Your task to perform on an android device: toggle airplane mode Image 0: 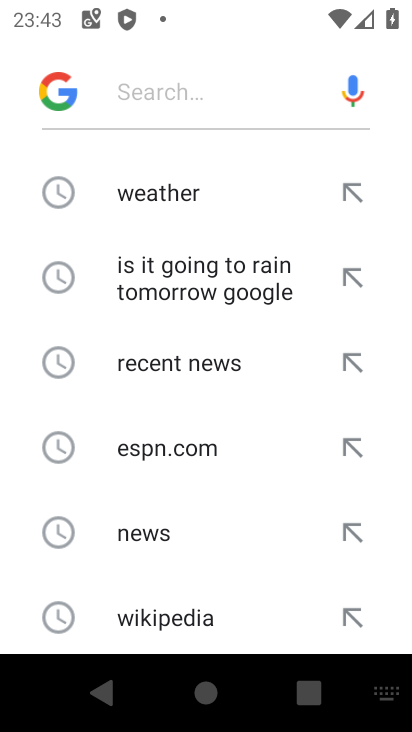
Step 0: press home button
Your task to perform on an android device: toggle airplane mode Image 1: 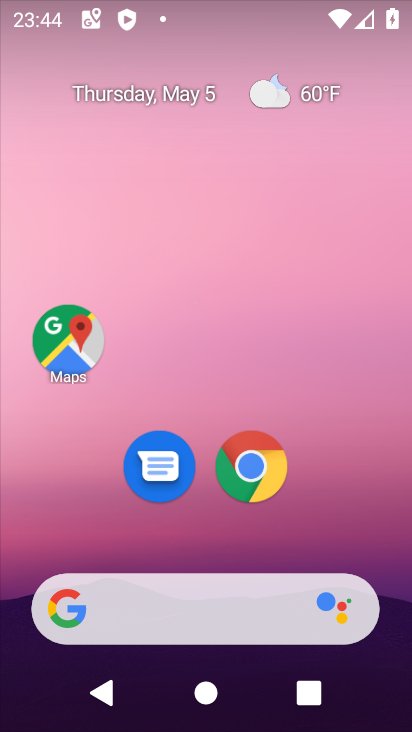
Step 1: drag from (136, 575) to (211, 163)
Your task to perform on an android device: toggle airplane mode Image 2: 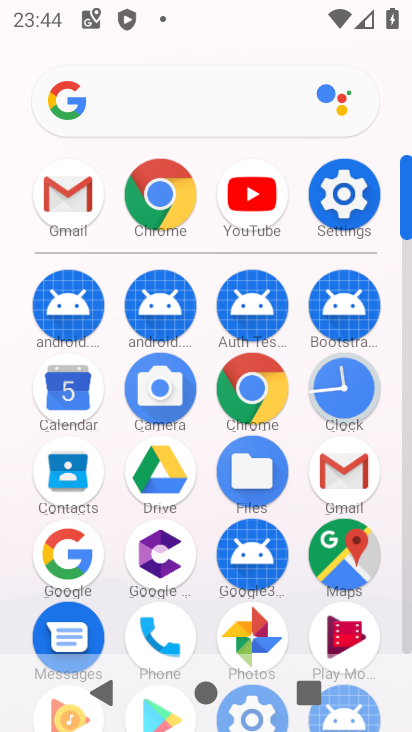
Step 2: click (339, 198)
Your task to perform on an android device: toggle airplane mode Image 3: 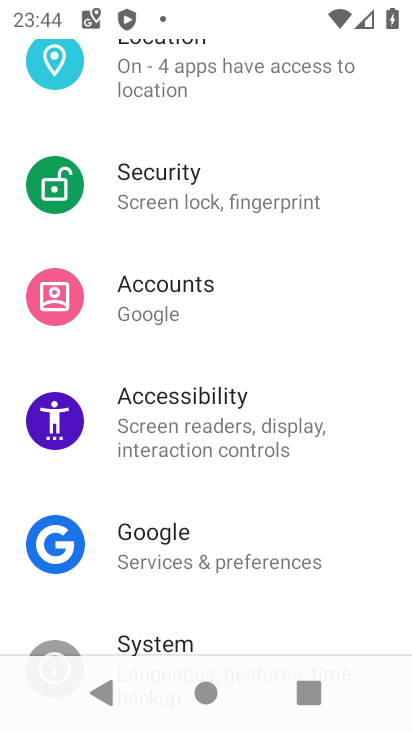
Step 3: drag from (182, 505) to (238, 273)
Your task to perform on an android device: toggle airplane mode Image 4: 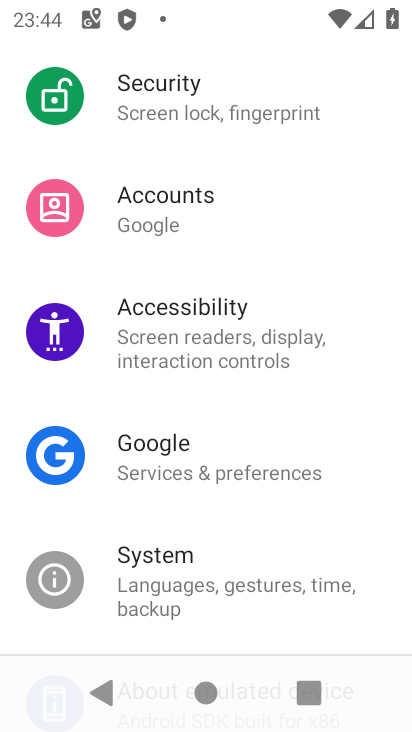
Step 4: drag from (238, 146) to (252, 469)
Your task to perform on an android device: toggle airplane mode Image 5: 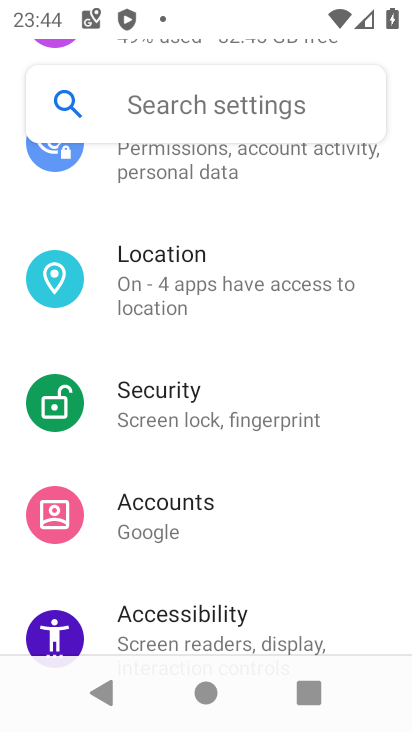
Step 5: drag from (246, 171) to (259, 554)
Your task to perform on an android device: toggle airplane mode Image 6: 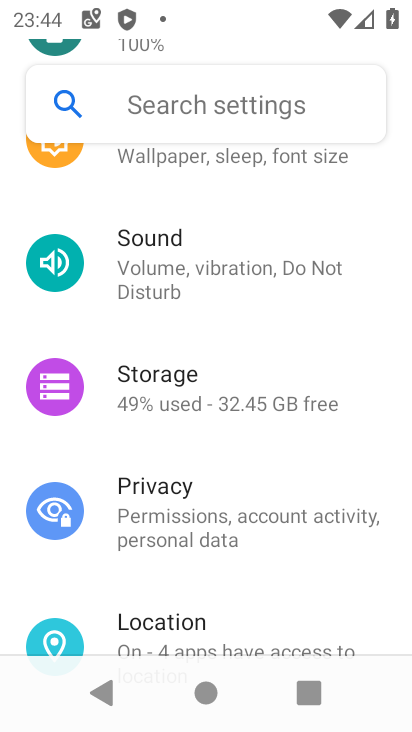
Step 6: drag from (291, 192) to (267, 558)
Your task to perform on an android device: toggle airplane mode Image 7: 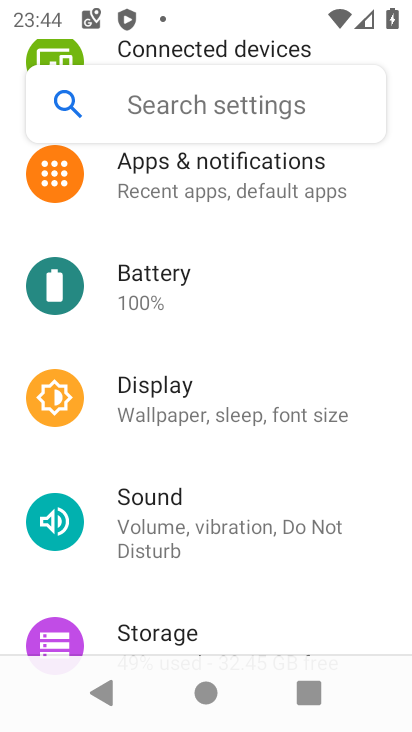
Step 7: drag from (247, 180) to (223, 536)
Your task to perform on an android device: toggle airplane mode Image 8: 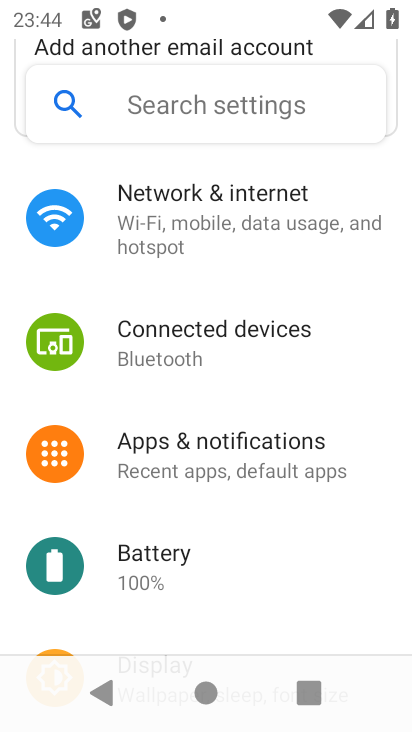
Step 8: click (256, 206)
Your task to perform on an android device: toggle airplane mode Image 9: 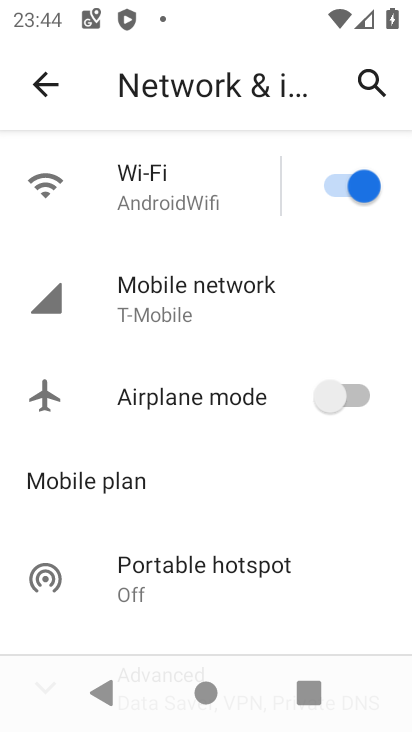
Step 9: click (360, 397)
Your task to perform on an android device: toggle airplane mode Image 10: 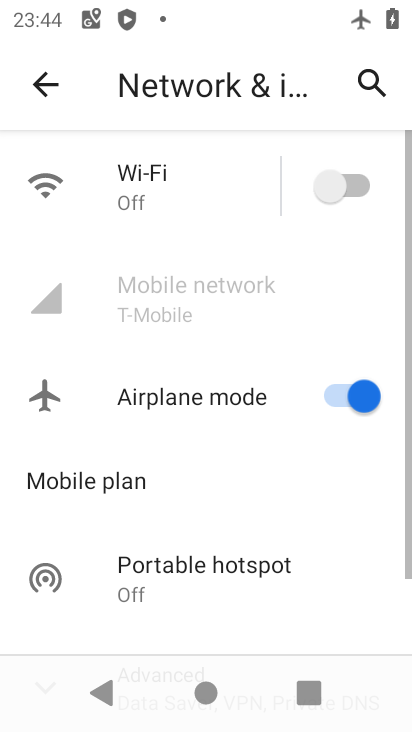
Step 10: task complete